Your task to perform on an android device: Show me popular videos on Youtube Image 0: 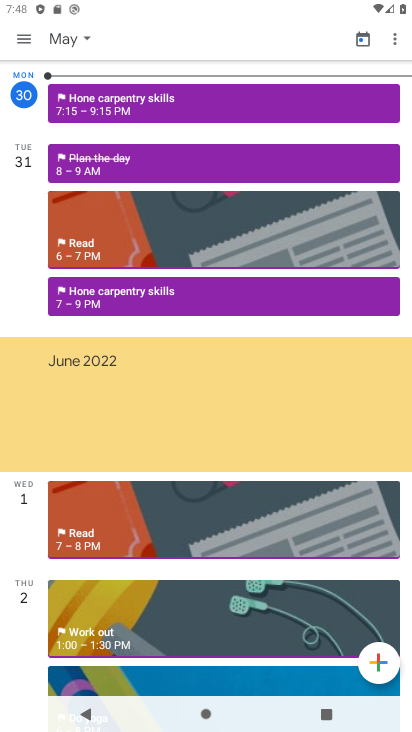
Step 0: press home button
Your task to perform on an android device: Show me popular videos on Youtube Image 1: 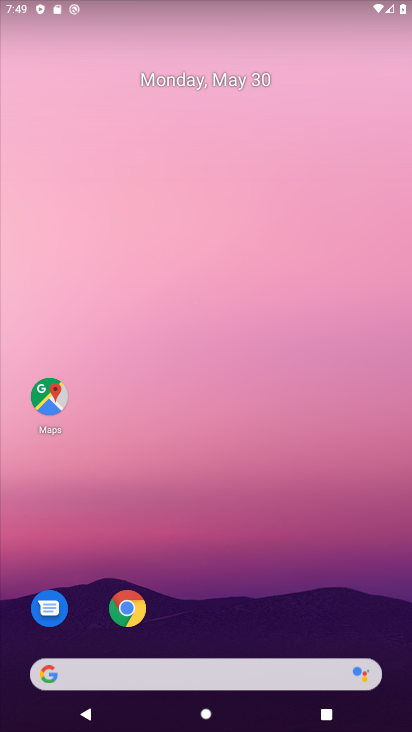
Step 1: click (242, 679)
Your task to perform on an android device: Show me popular videos on Youtube Image 2: 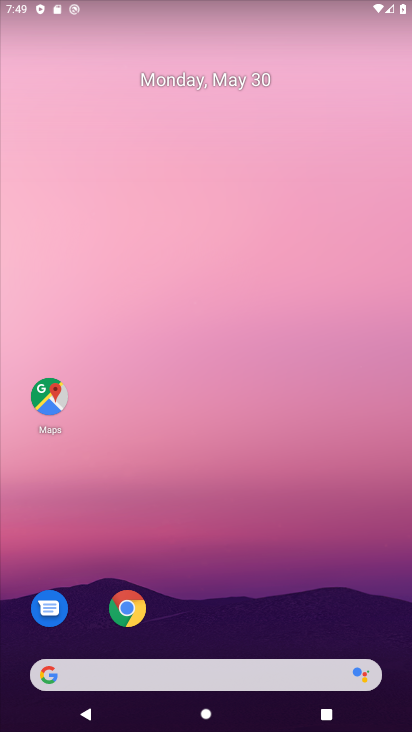
Step 2: drag from (243, 541) to (243, 195)
Your task to perform on an android device: Show me popular videos on Youtube Image 3: 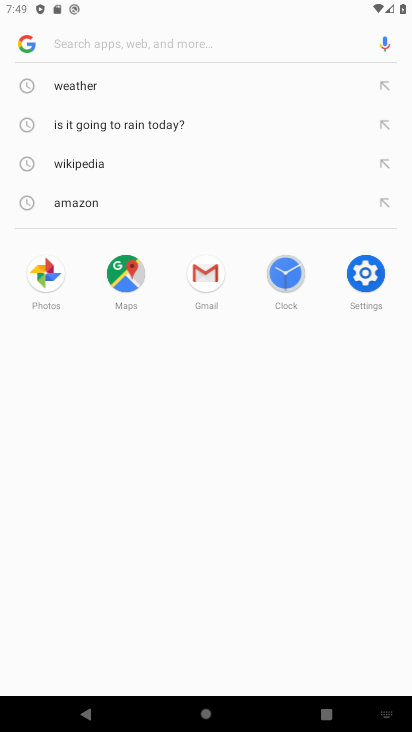
Step 3: press home button
Your task to perform on an android device: Show me popular videos on Youtube Image 4: 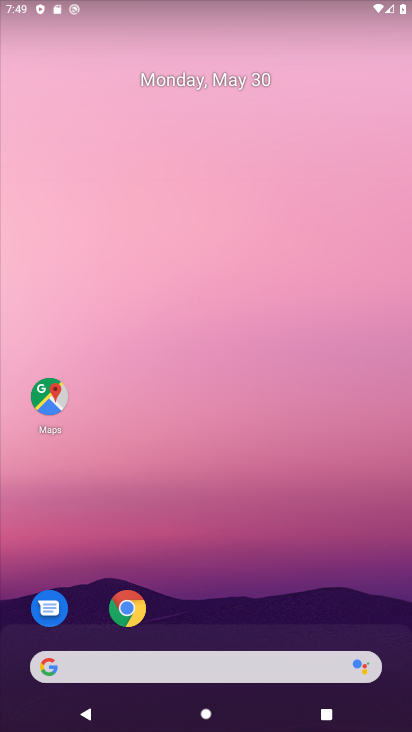
Step 4: drag from (237, 729) to (239, 222)
Your task to perform on an android device: Show me popular videos on Youtube Image 5: 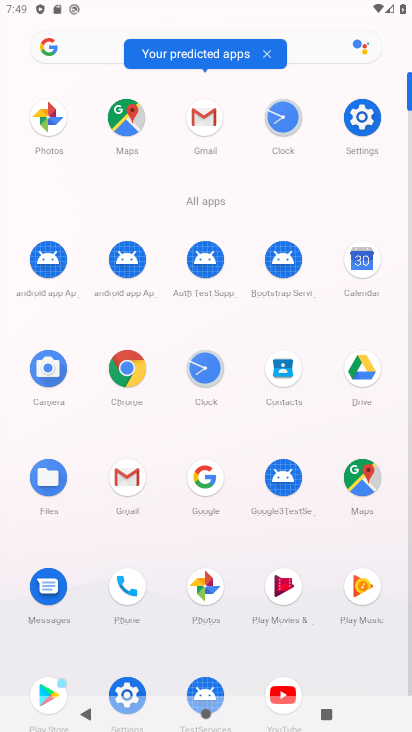
Step 5: click (282, 695)
Your task to perform on an android device: Show me popular videos on Youtube Image 6: 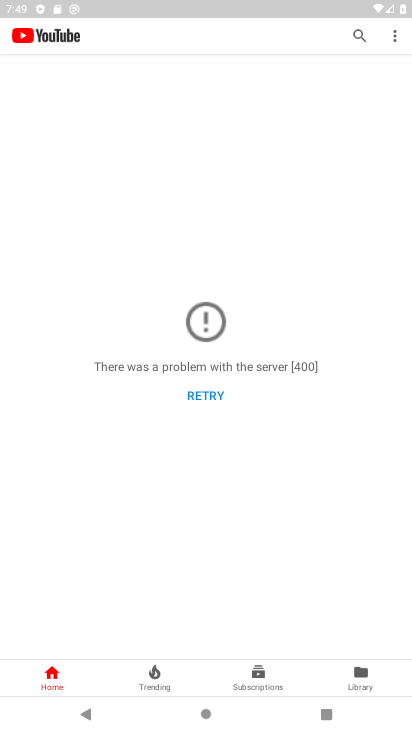
Step 6: click (356, 37)
Your task to perform on an android device: Show me popular videos on Youtube Image 7: 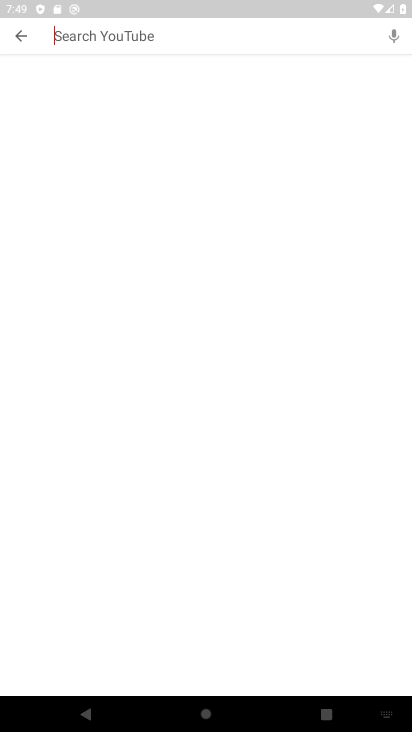
Step 7: task complete